Your task to perform on an android device: Open Reddit.com Image 0: 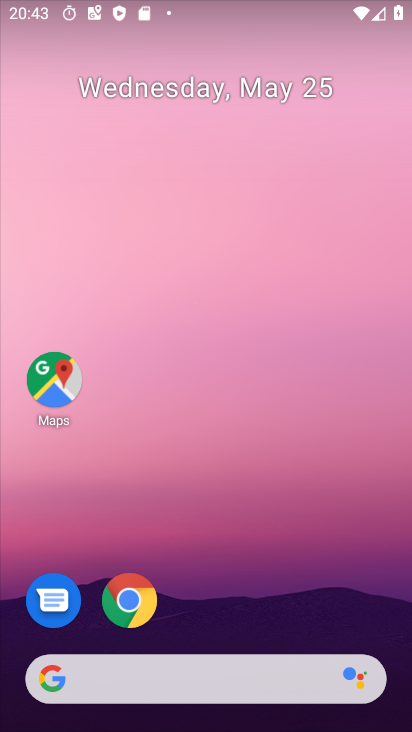
Step 0: drag from (296, 590) to (271, 155)
Your task to perform on an android device: Open Reddit.com Image 1: 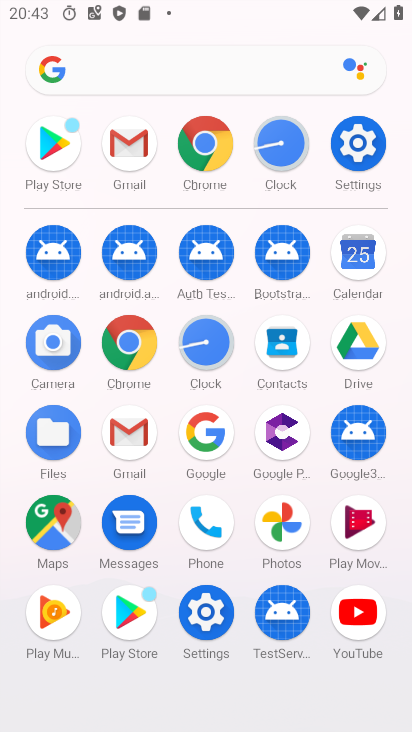
Step 1: click (212, 164)
Your task to perform on an android device: Open Reddit.com Image 2: 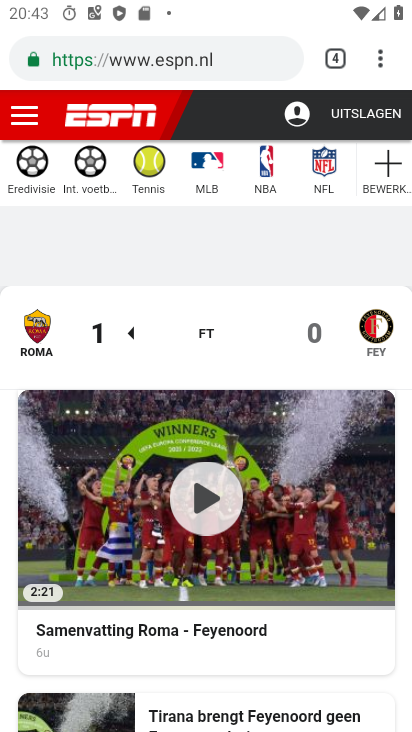
Step 2: click (198, 76)
Your task to perform on an android device: Open Reddit.com Image 3: 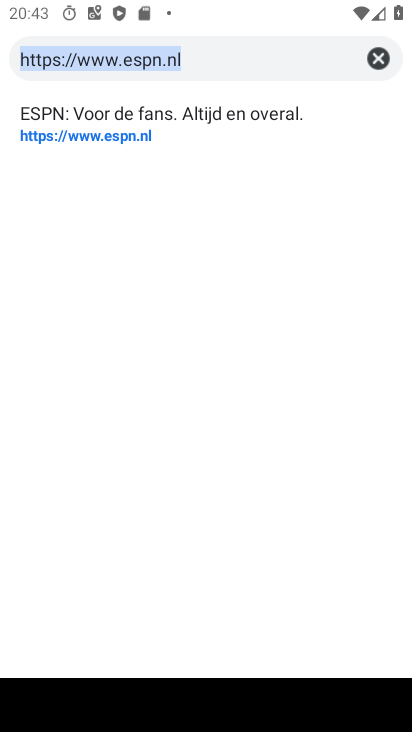
Step 3: click (373, 59)
Your task to perform on an android device: Open Reddit.com Image 4: 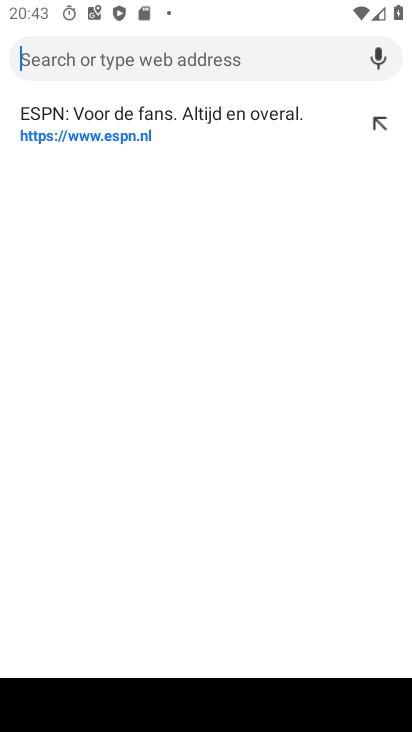
Step 4: type "reddit.com"
Your task to perform on an android device: Open Reddit.com Image 5: 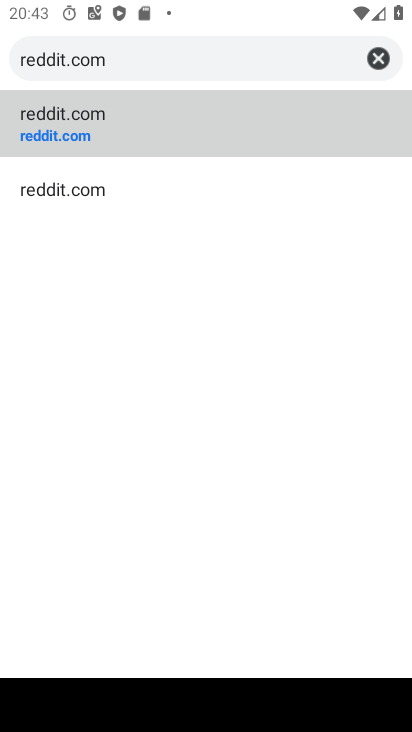
Step 5: click (125, 113)
Your task to perform on an android device: Open Reddit.com Image 6: 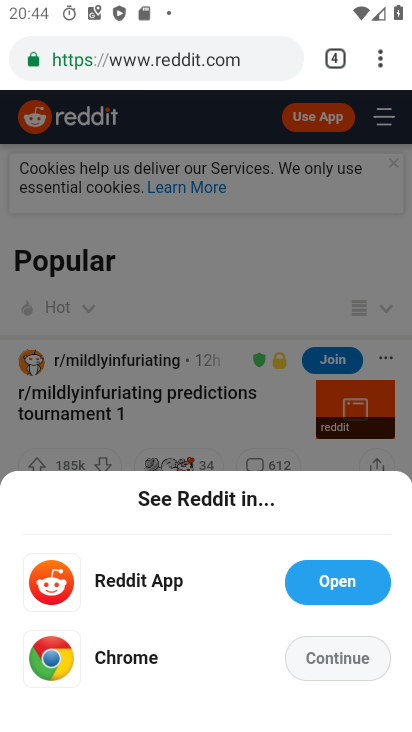
Step 6: task complete